Your task to perform on an android device: Add "asus rog" to the cart on costco.com Image 0: 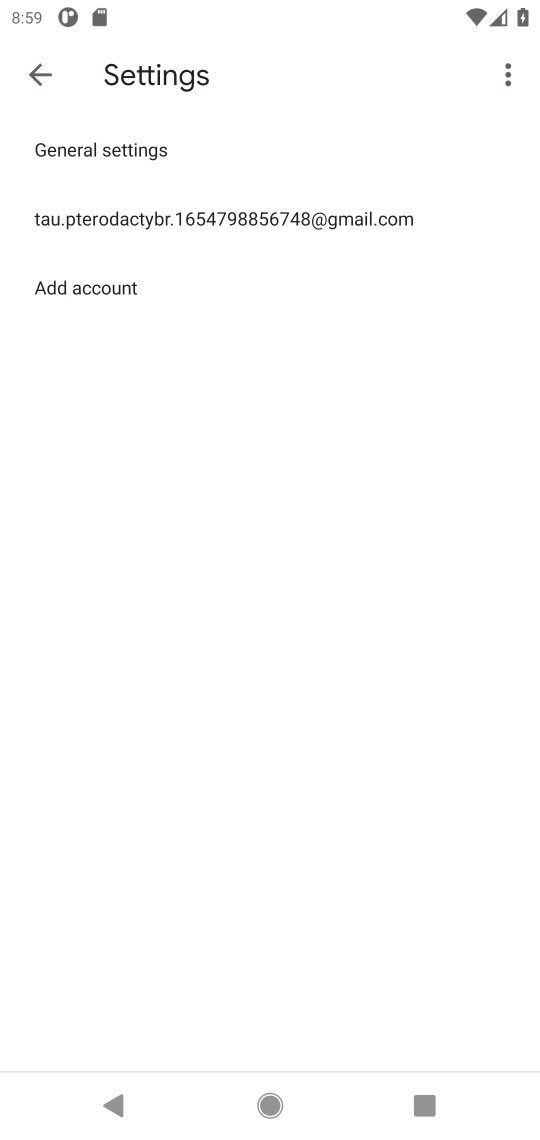
Step 0: press home button
Your task to perform on an android device: Add "asus rog" to the cart on costco.com Image 1: 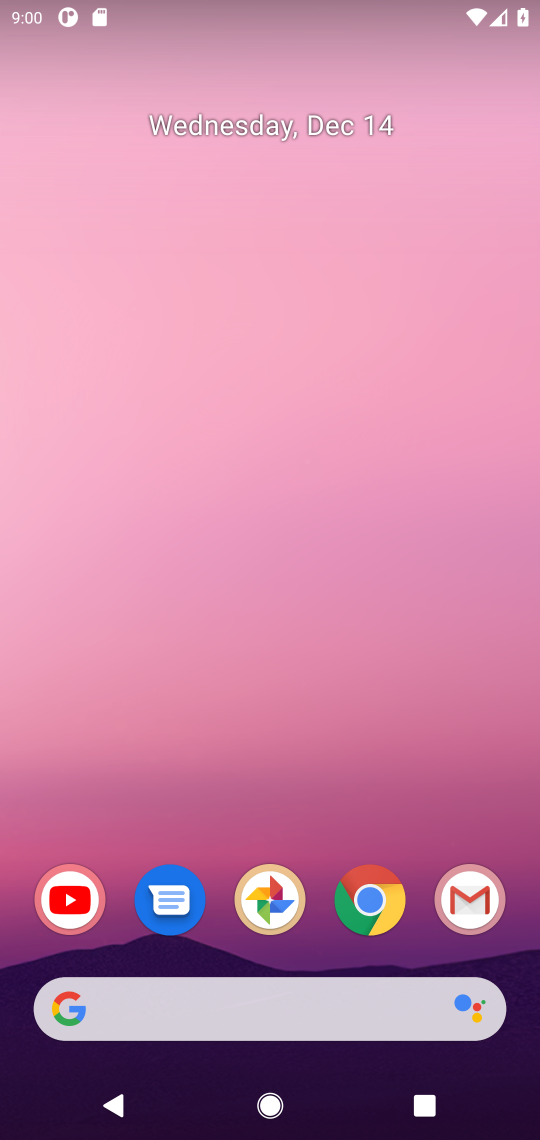
Step 1: click (233, 1020)
Your task to perform on an android device: Add "asus rog" to the cart on costco.com Image 2: 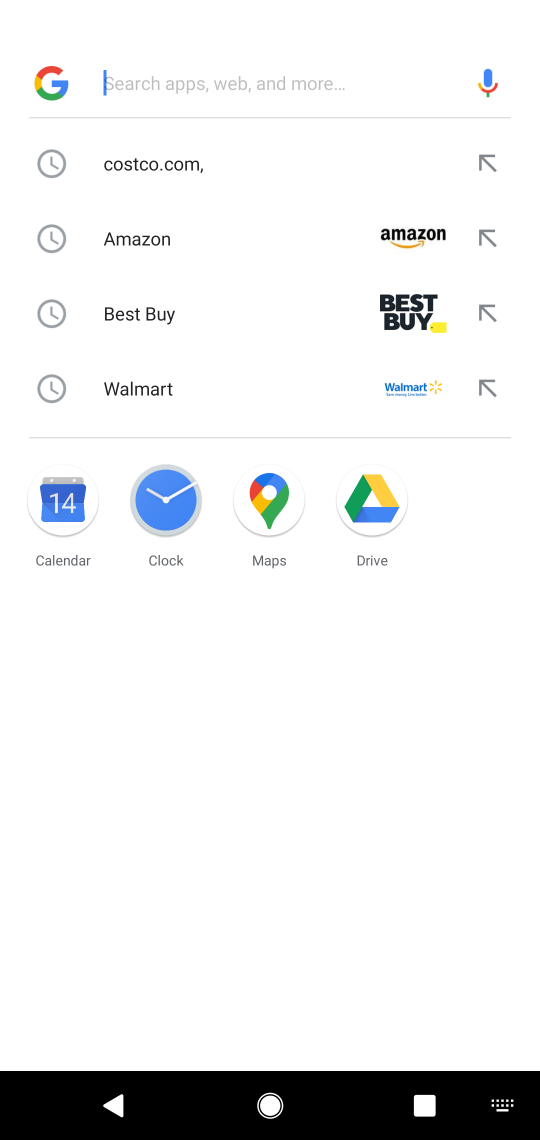
Step 2: type "costco.com"
Your task to perform on an android device: Add "asus rog" to the cart on costco.com Image 3: 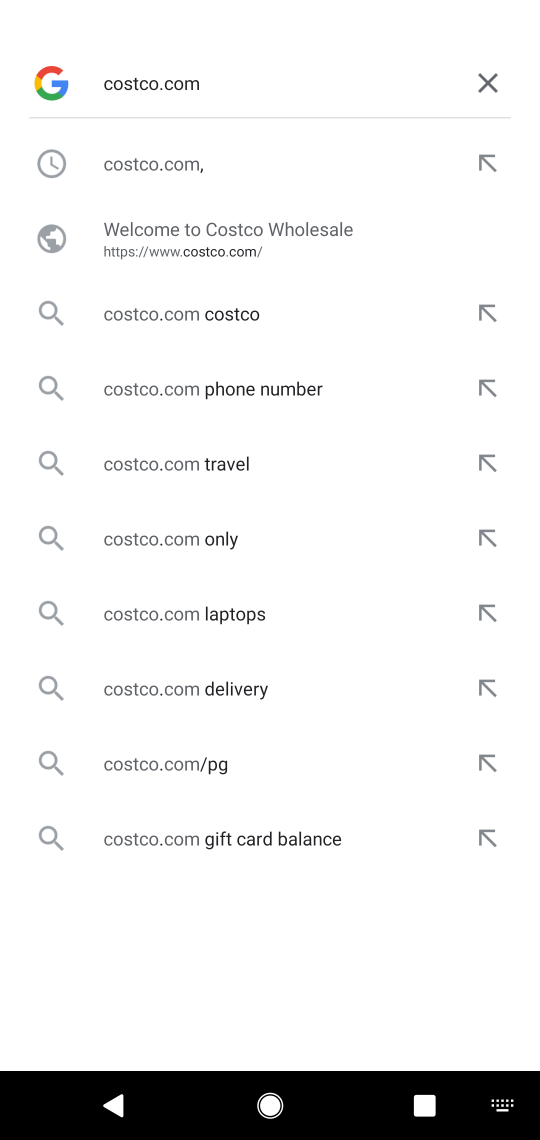
Step 3: type ""
Your task to perform on an android device: Add "asus rog" to the cart on costco.com Image 4: 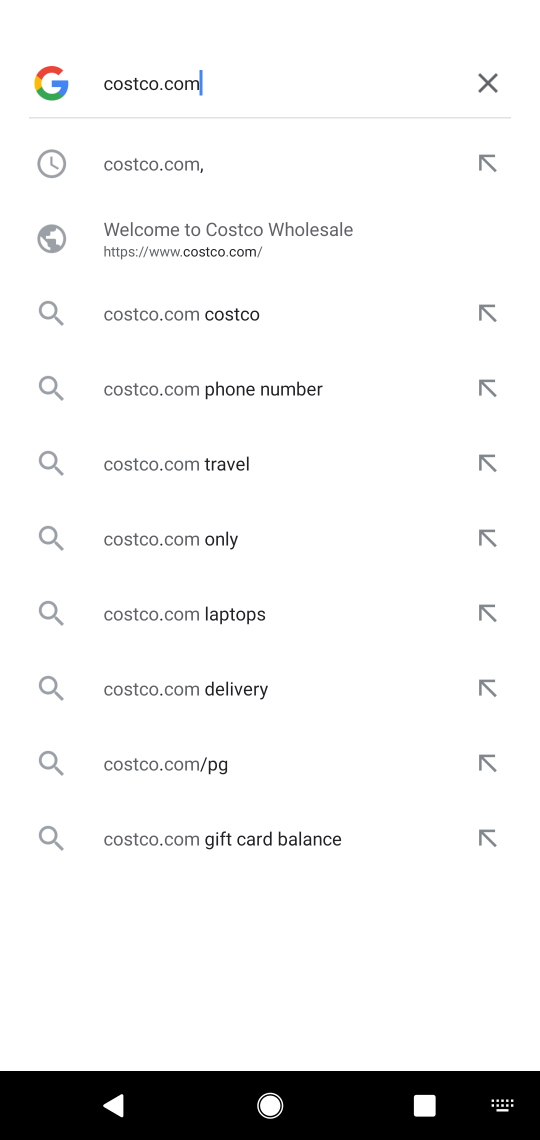
Step 4: click (488, 76)
Your task to perform on an android device: Add "asus rog" to the cart on costco.com Image 5: 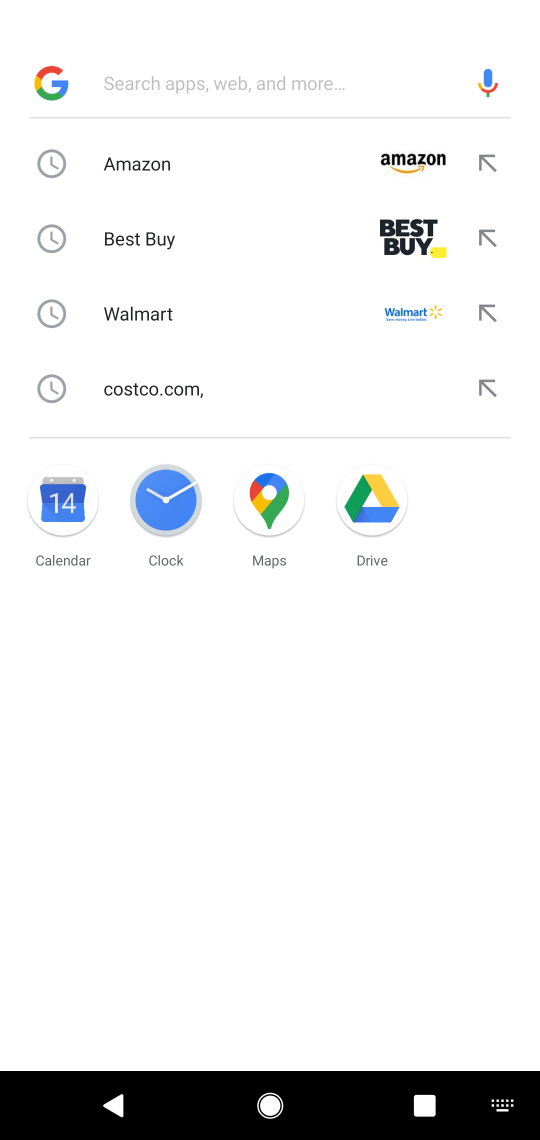
Step 5: type "costco.com"
Your task to perform on an android device: Add "asus rog" to the cart on costco.com Image 6: 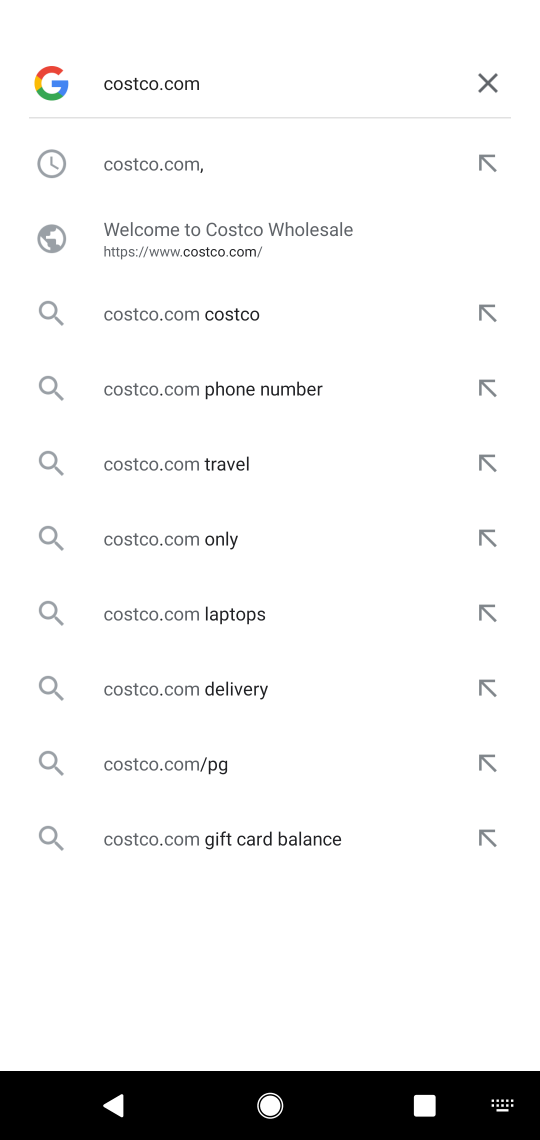
Step 6: click (107, 164)
Your task to perform on an android device: Add "asus rog" to the cart on costco.com Image 7: 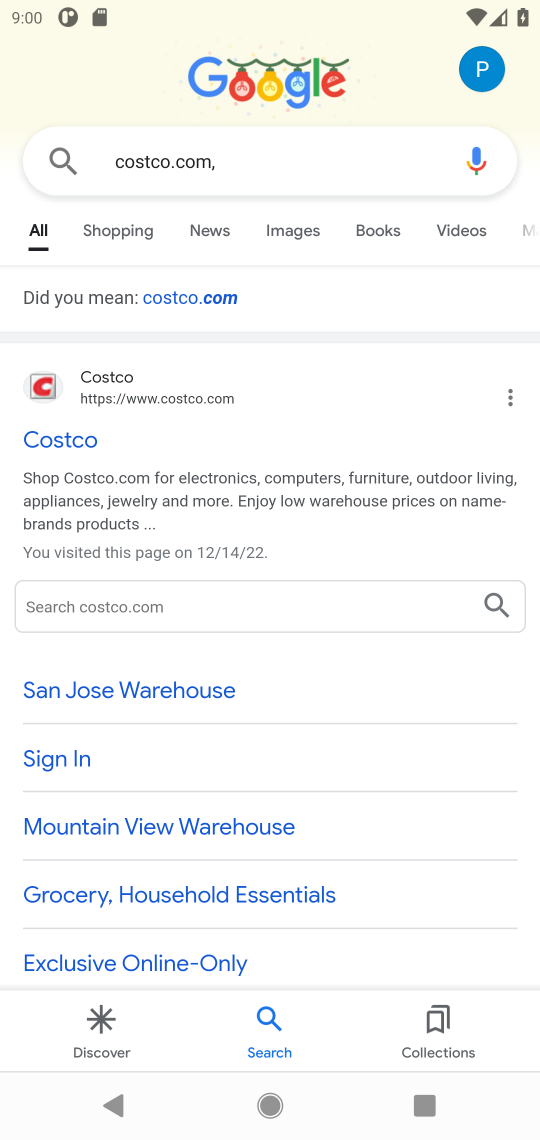
Step 7: click (48, 459)
Your task to perform on an android device: Add "asus rog" to the cart on costco.com Image 8: 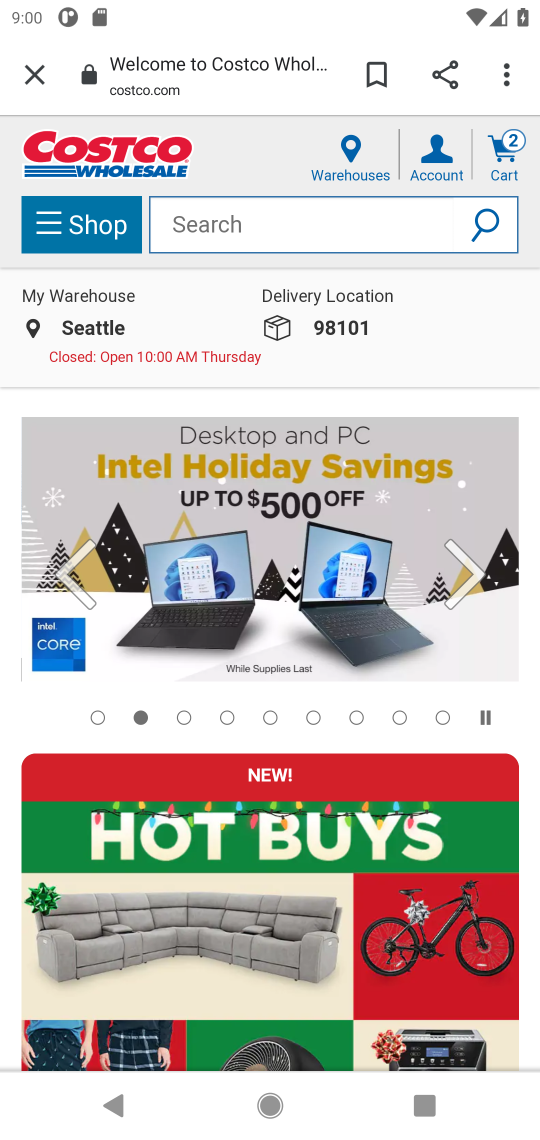
Step 8: click (254, 230)
Your task to perform on an android device: Add "asus rog" to the cart on costco.com Image 9: 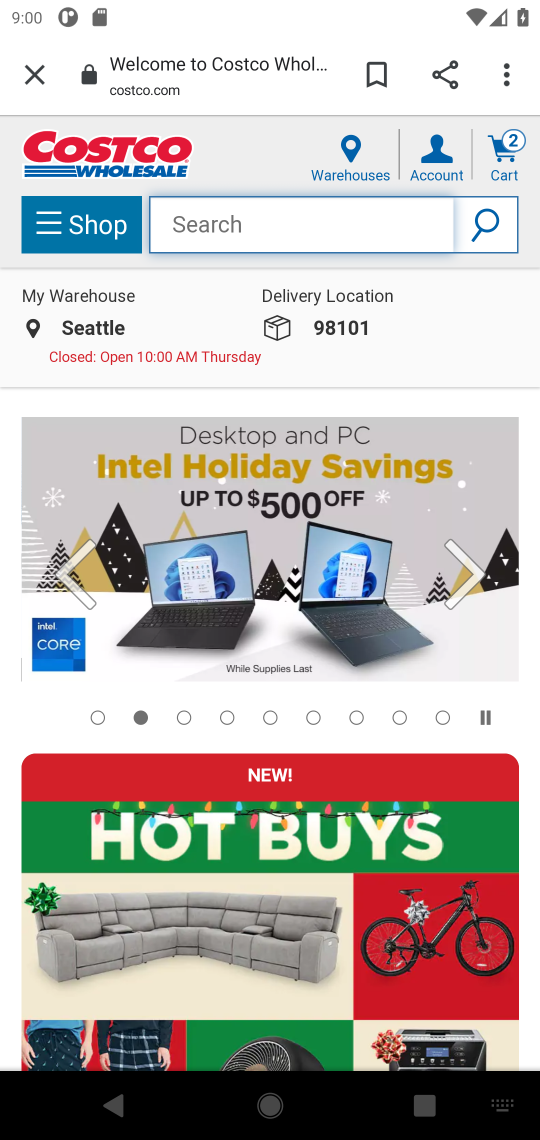
Step 9: type "asus rog"
Your task to perform on an android device: Add "asus rog" to the cart on costco.com Image 10: 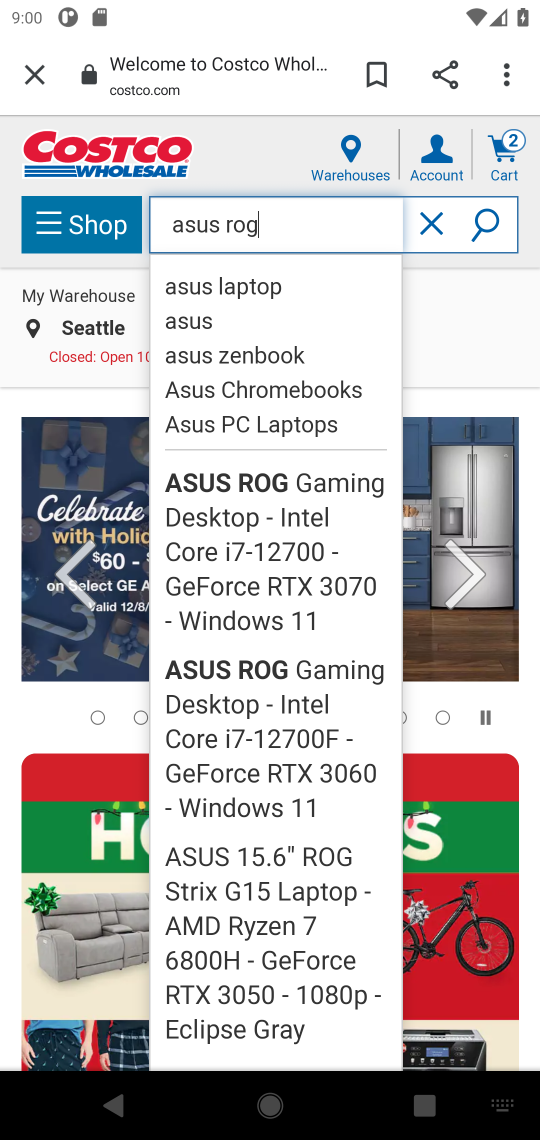
Step 10: click (487, 224)
Your task to perform on an android device: Add "asus rog" to the cart on costco.com Image 11: 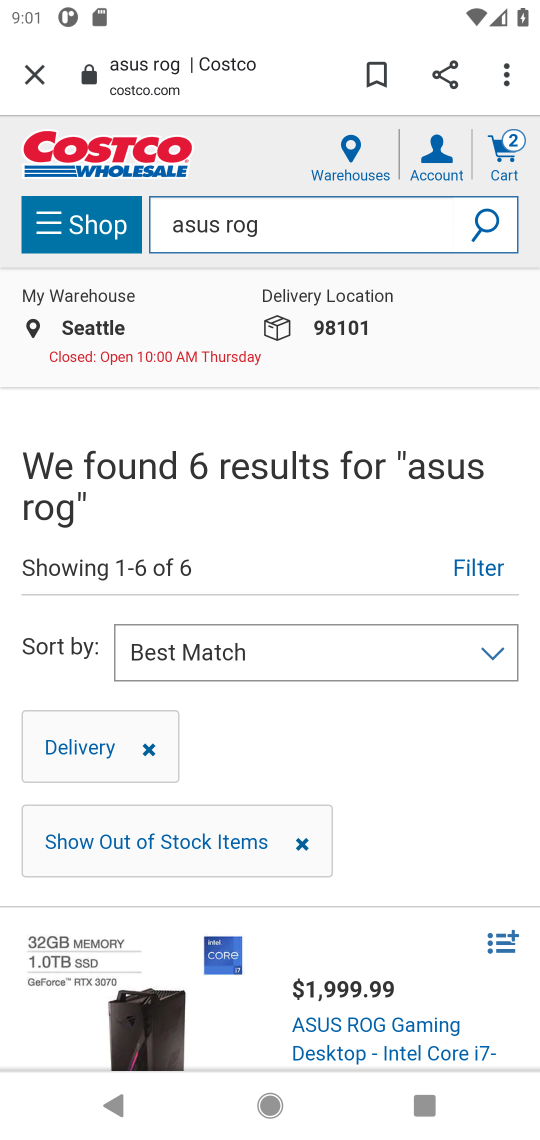
Step 11: click (280, 1082)
Your task to perform on an android device: Add "asus rog" to the cart on costco.com Image 12: 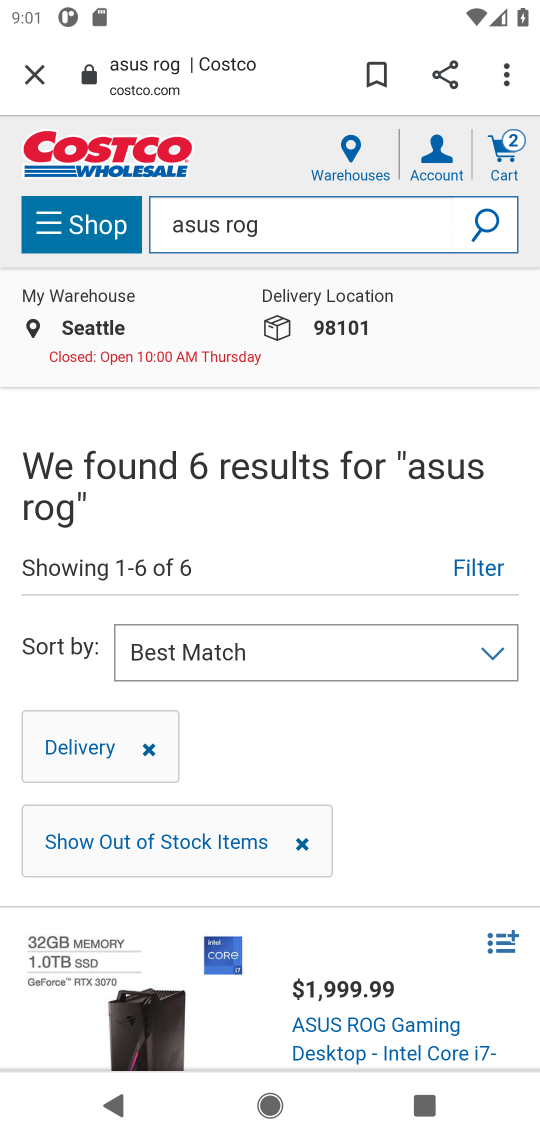
Step 12: click (289, 1056)
Your task to perform on an android device: Add "asus rog" to the cart on costco.com Image 13: 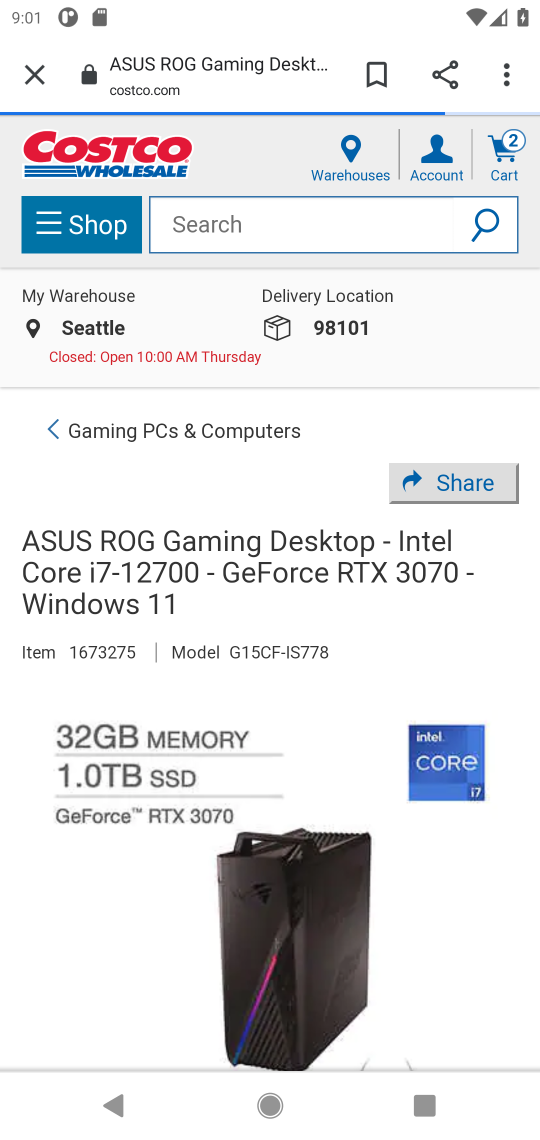
Step 13: drag from (328, 795) to (250, 105)
Your task to perform on an android device: Add "asus rog" to the cart on costco.com Image 14: 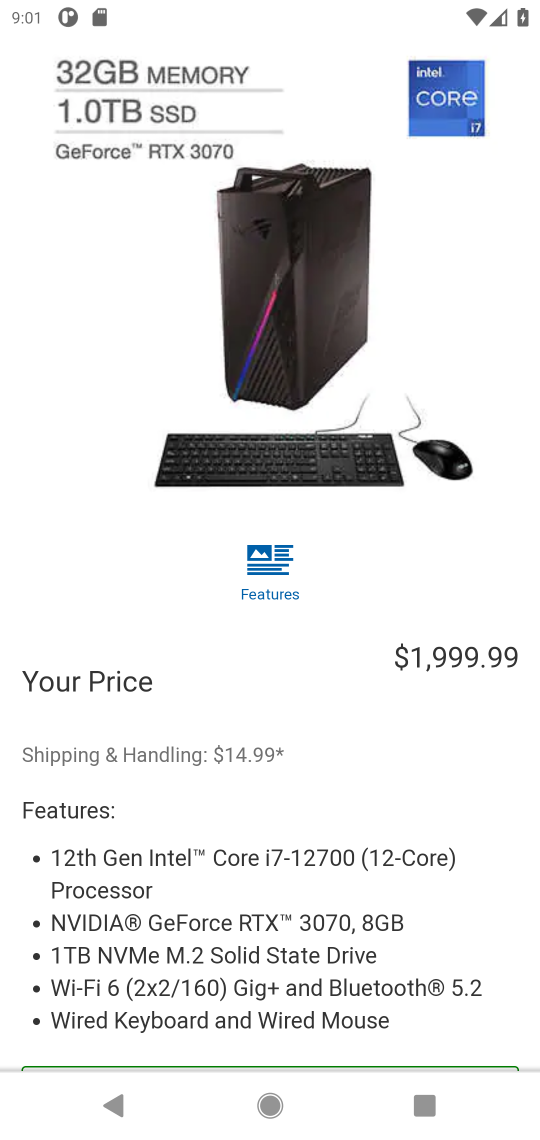
Step 14: drag from (257, 902) to (238, 64)
Your task to perform on an android device: Add "asus rog" to the cart on costco.com Image 15: 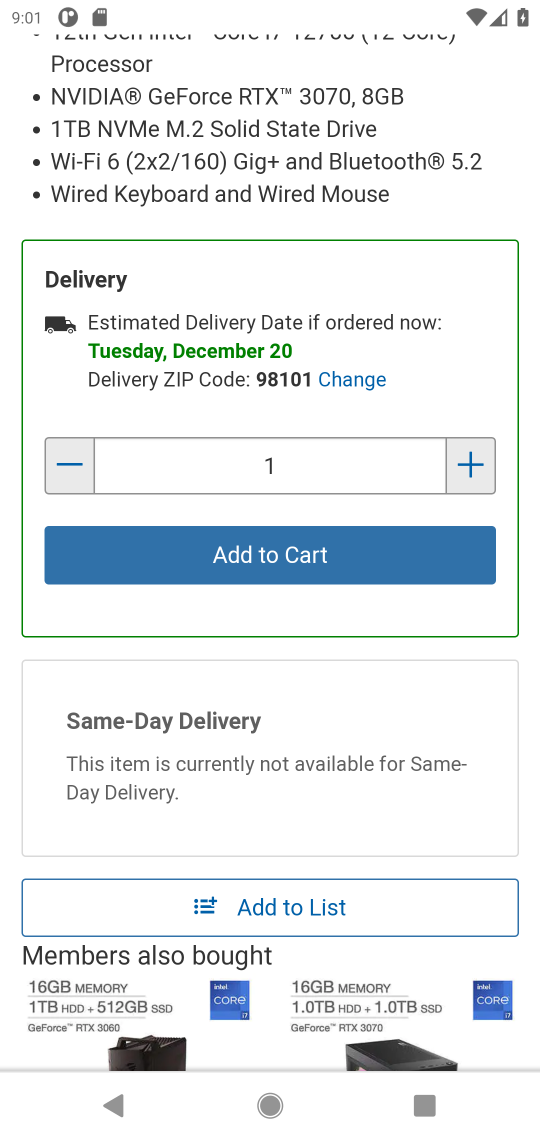
Step 15: click (244, 563)
Your task to perform on an android device: Add "asus rog" to the cart on costco.com Image 16: 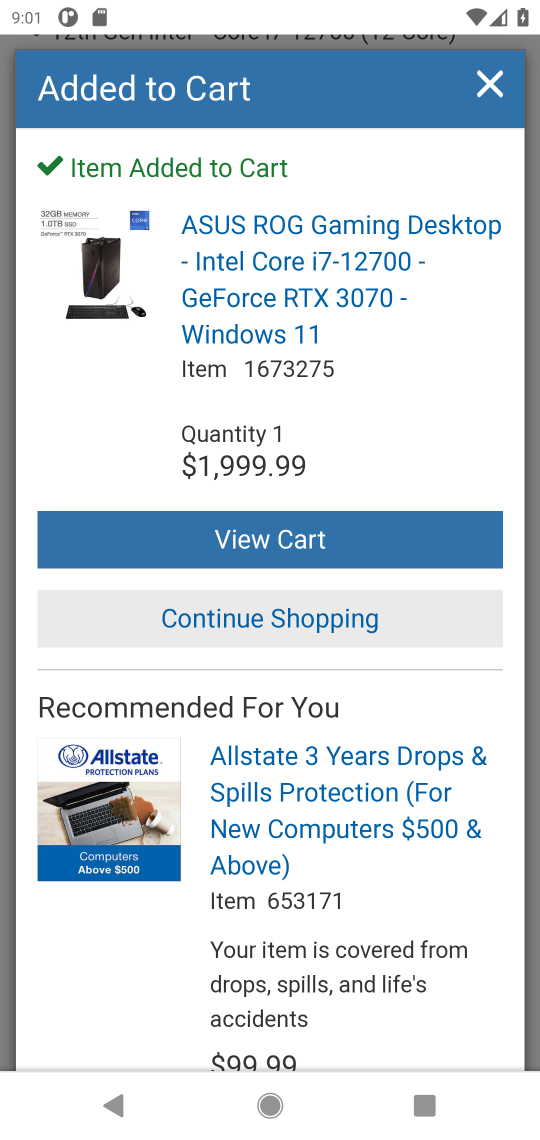
Step 16: task complete